Your task to perform on an android device: set default search engine in the chrome app Image 0: 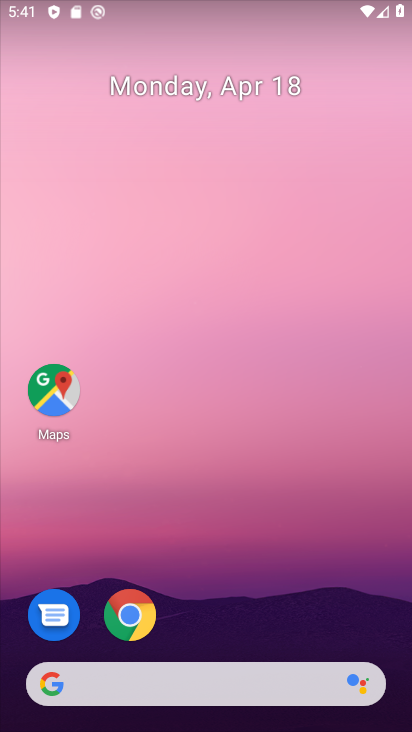
Step 0: drag from (283, 592) to (312, 67)
Your task to perform on an android device: set default search engine in the chrome app Image 1: 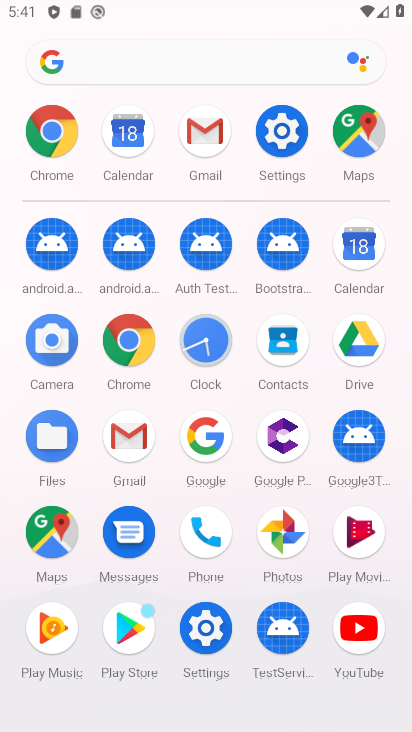
Step 1: click (54, 133)
Your task to perform on an android device: set default search engine in the chrome app Image 2: 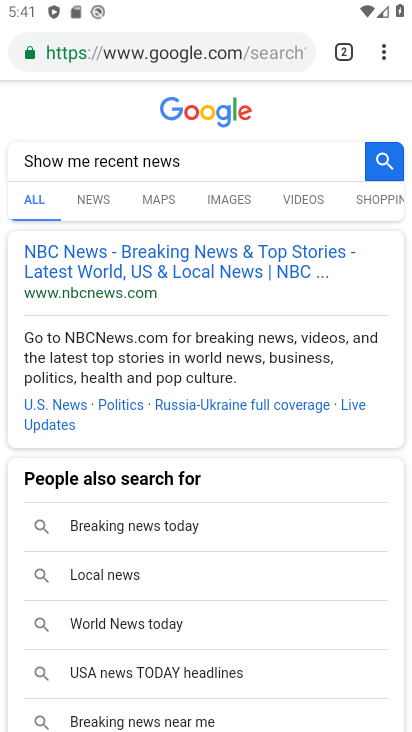
Step 2: click (390, 43)
Your task to perform on an android device: set default search engine in the chrome app Image 3: 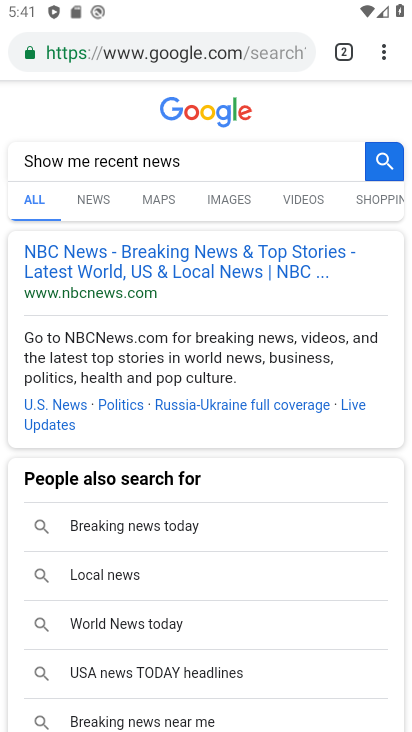
Step 3: drag from (390, 43) to (199, 633)
Your task to perform on an android device: set default search engine in the chrome app Image 4: 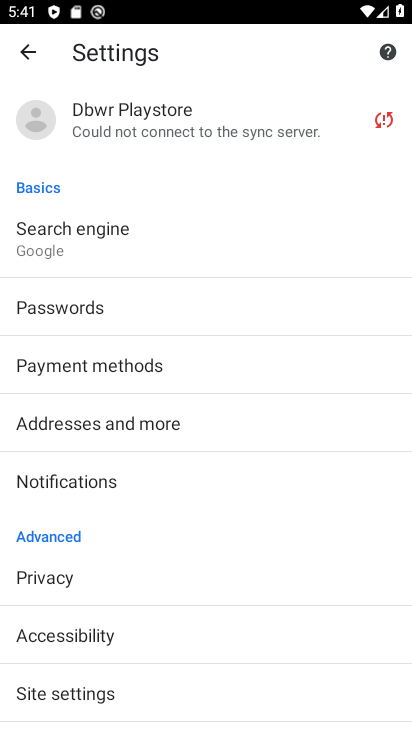
Step 4: click (108, 236)
Your task to perform on an android device: set default search engine in the chrome app Image 5: 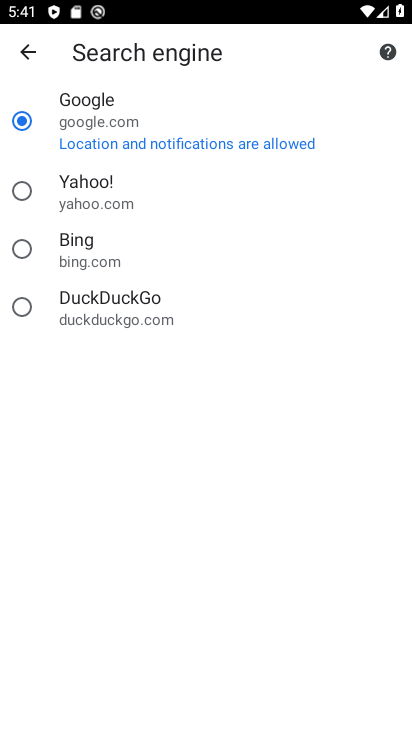
Step 5: task complete